Your task to perform on an android device: Open accessibility settings Image 0: 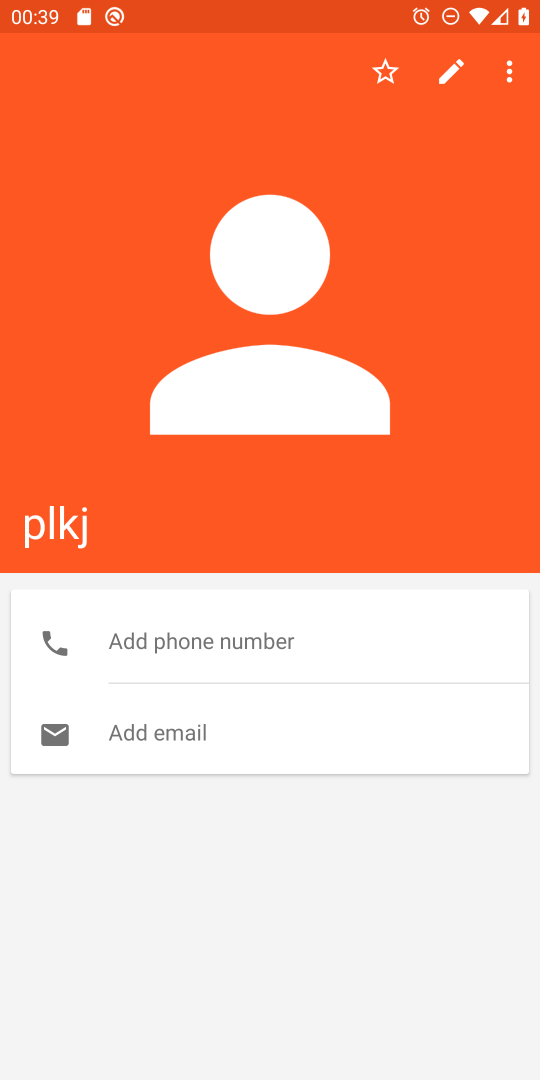
Step 0: press home button
Your task to perform on an android device: Open accessibility settings Image 1: 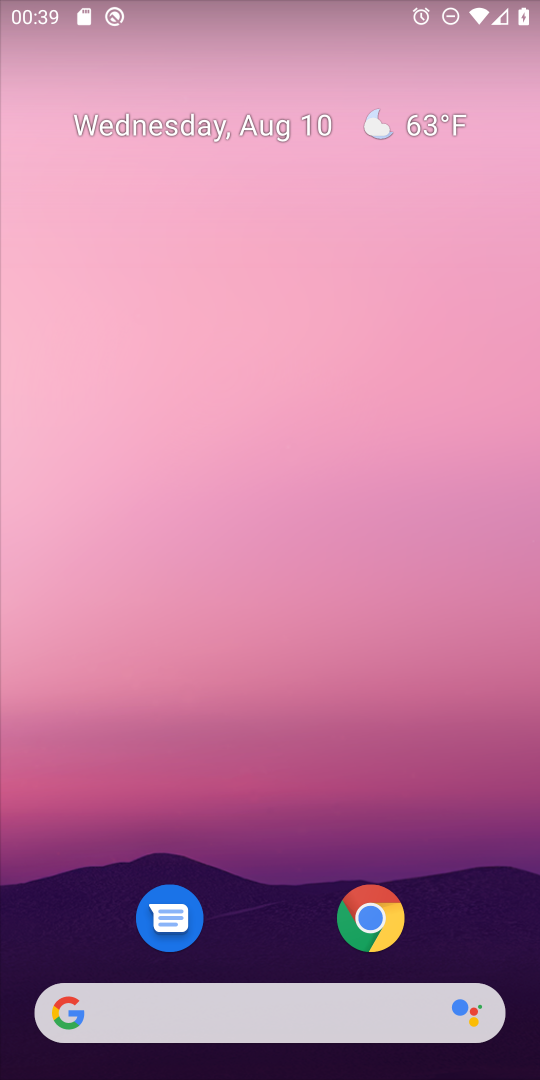
Step 1: drag from (252, 904) to (205, 201)
Your task to perform on an android device: Open accessibility settings Image 2: 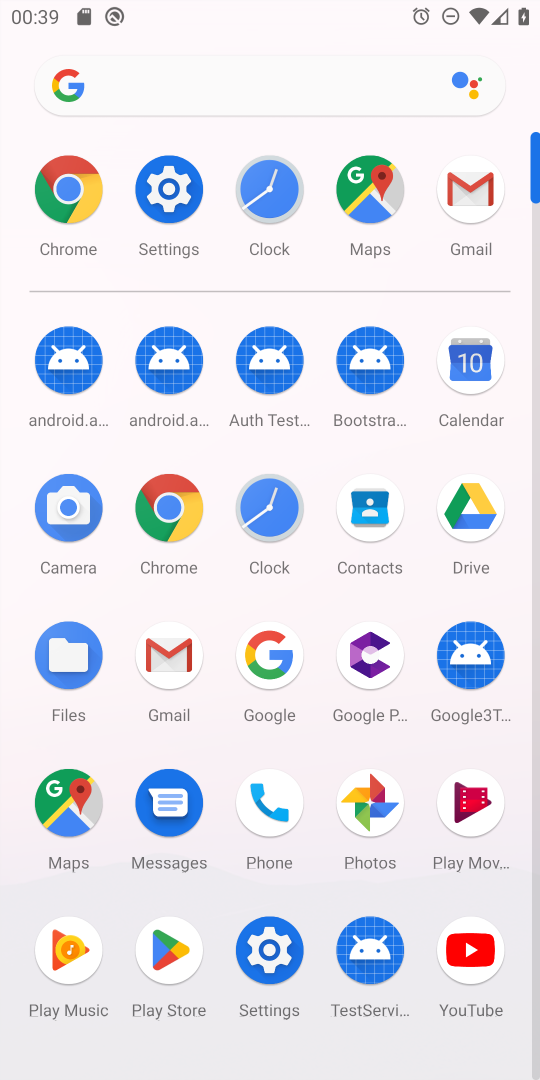
Step 2: click (269, 939)
Your task to perform on an android device: Open accessibility settings Image 3: 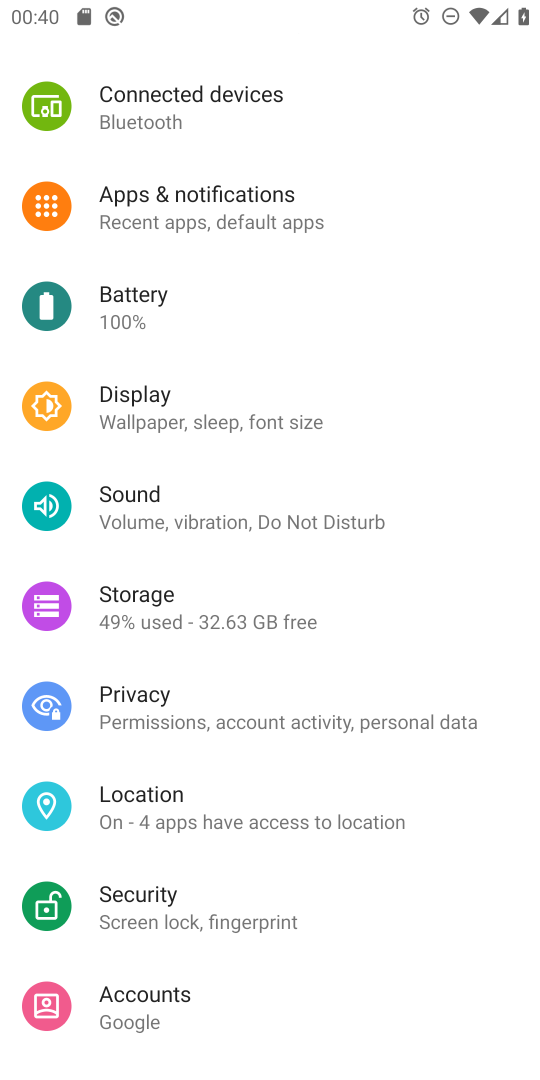
Step 3: drag from (265, 971) to (341, 284)
Your task to perform on an android device: Open accessibility settings Image 4: 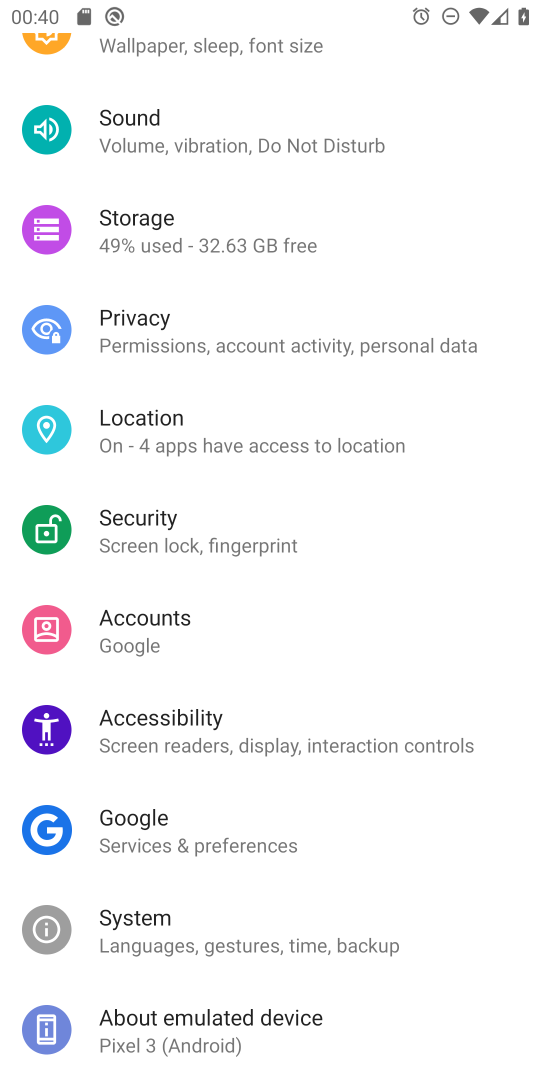
Step 4: click (155, 724)
Your task to perform on an android device: Open accessibility settings Image 5: 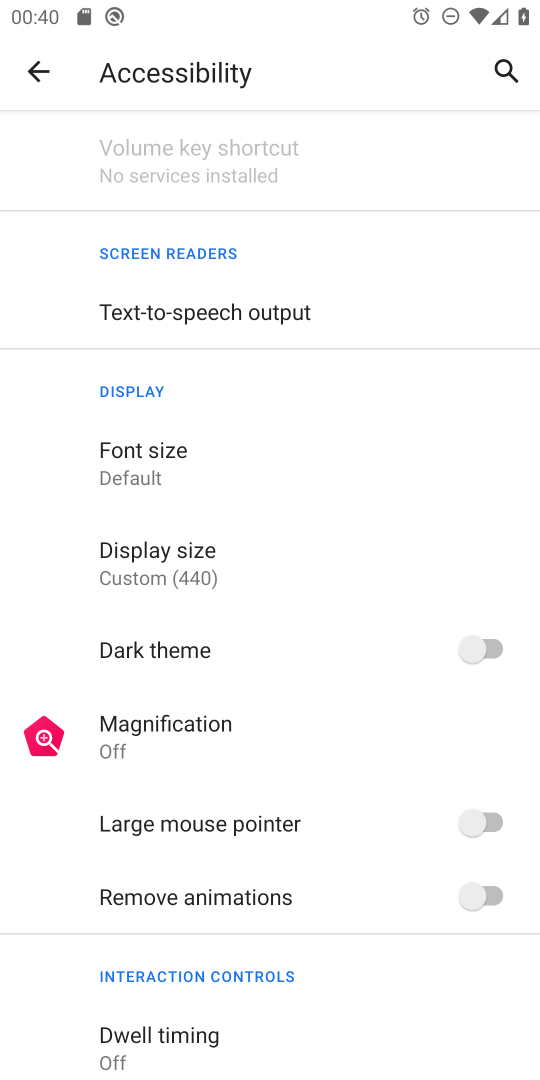
Step 5: task complete